Your task to perform on an android device: turn off data saver in the chrome app Image 0: 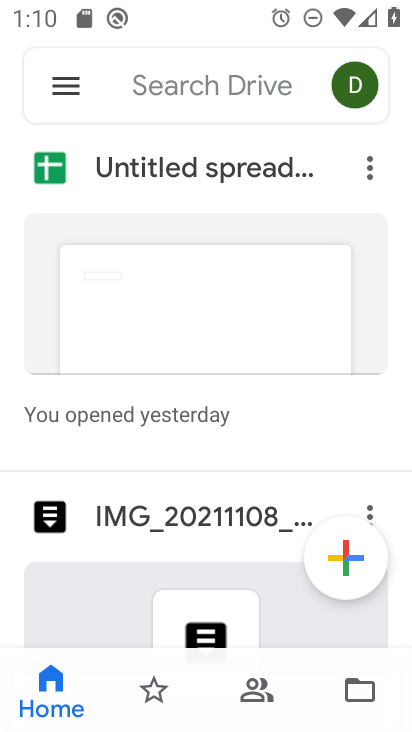
Step 0: press home button
Your task to perform on an android device: turn off data saver in the chrome app Image 1: 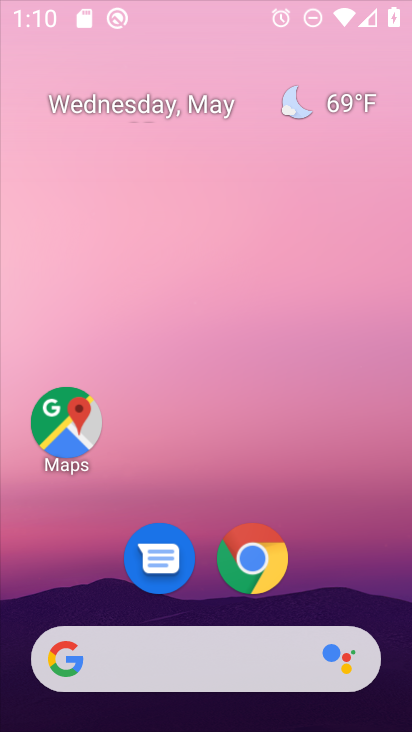
Step 1: drag from (398, 682) to (350, 23)
Your task to perform on an android device: turn off data saver in the chrome app Image 2: 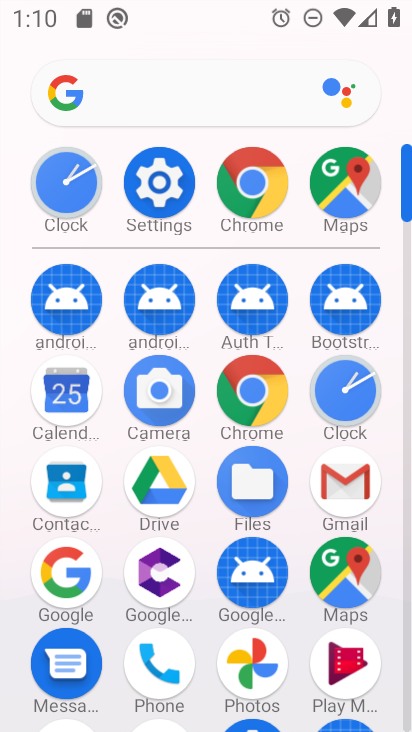
Step 2: click (243, 387)
Your task to perform on an android device: turn off data saver in the chrome app Image 3: 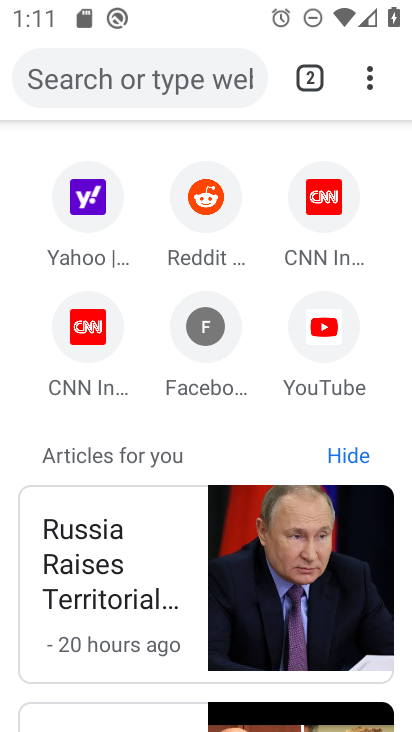
Step 3: click (369, 79)
Your task to perform on an android device: turn off data saver in the chrome app Image 4: 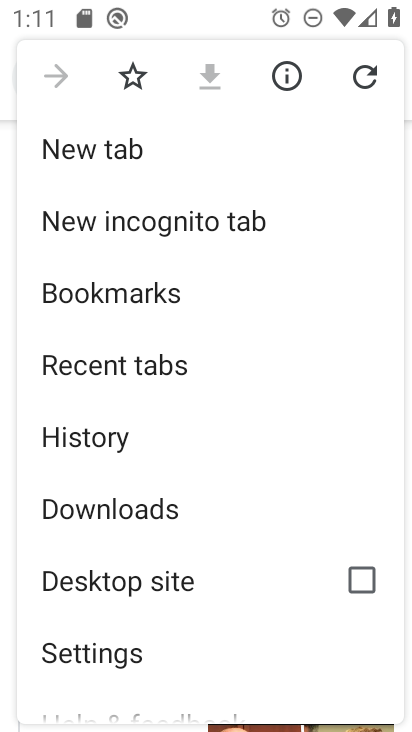
Step 4: click (153, 656)
Your task to perform on an android device: turn off data saver in the chrome app Image 5: 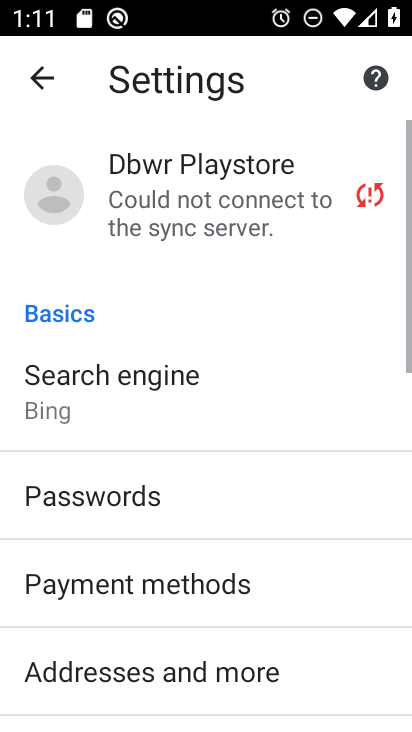
Step 5: drag from (153, 669) to (256, 74)
Your task to perform on an android device: turn off data saver in the chrome app Image 6: 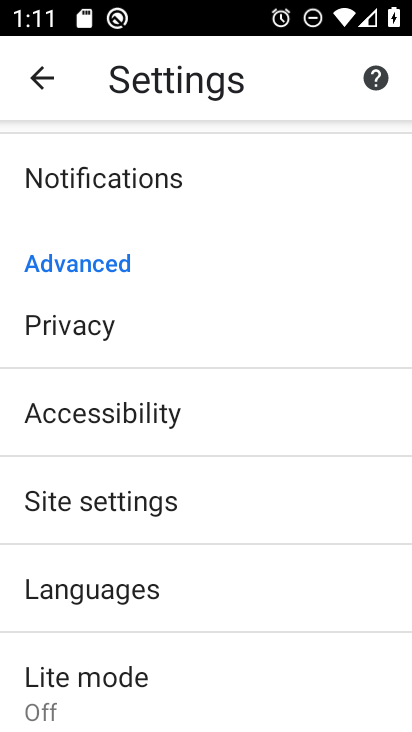
Step 6: click (165, 683)
Your task to perform on an android device: turn off data saver in the chrome app Image 7: 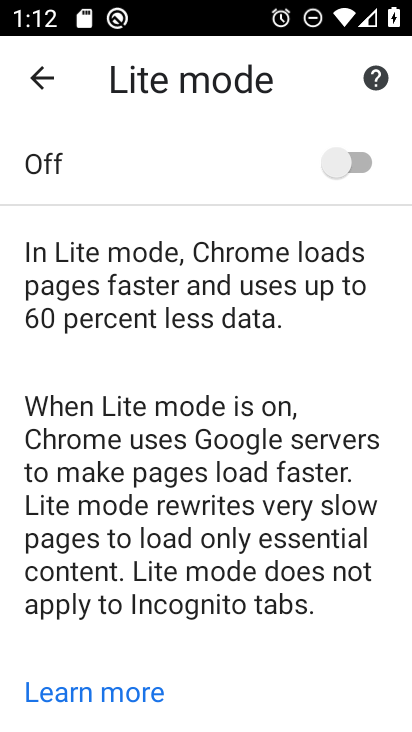
Step 7: task complete